Your task to perform on an android device: Open sound settings Image 0: 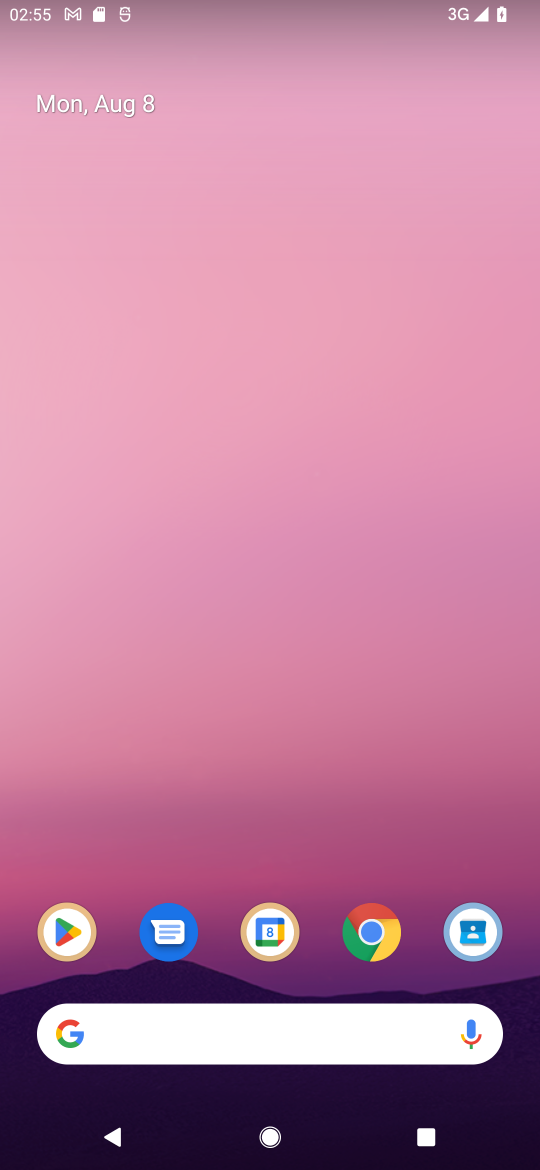
Step 0: drag from (281, 881) to (272, 5)
Your task to perform on an android device: Open sound settings Image 1: 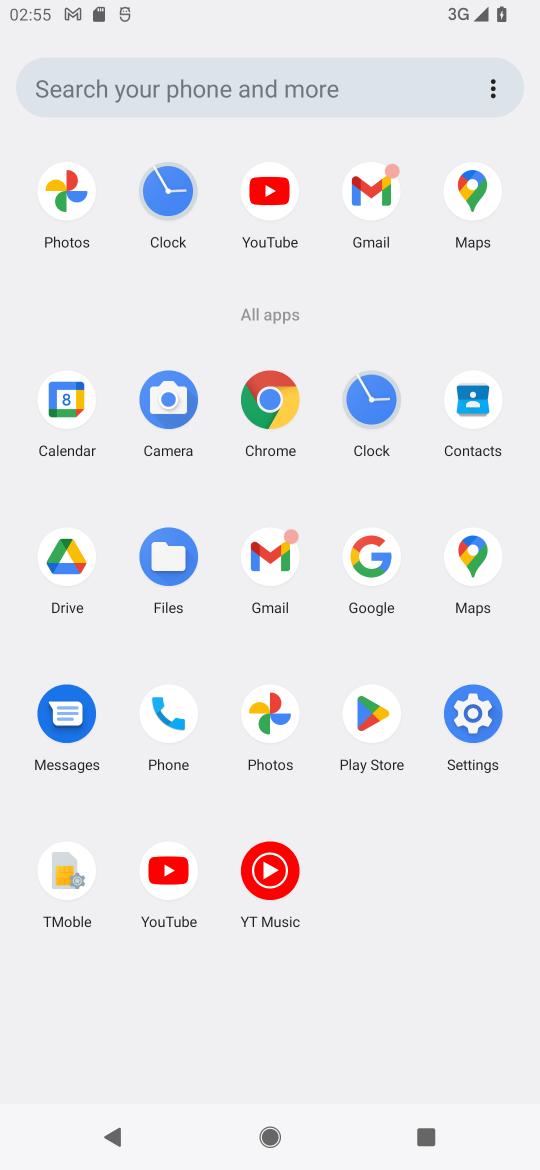
Step 1: click (482, 713)
Your task to perform on an android device: Open sound settings Image 2: 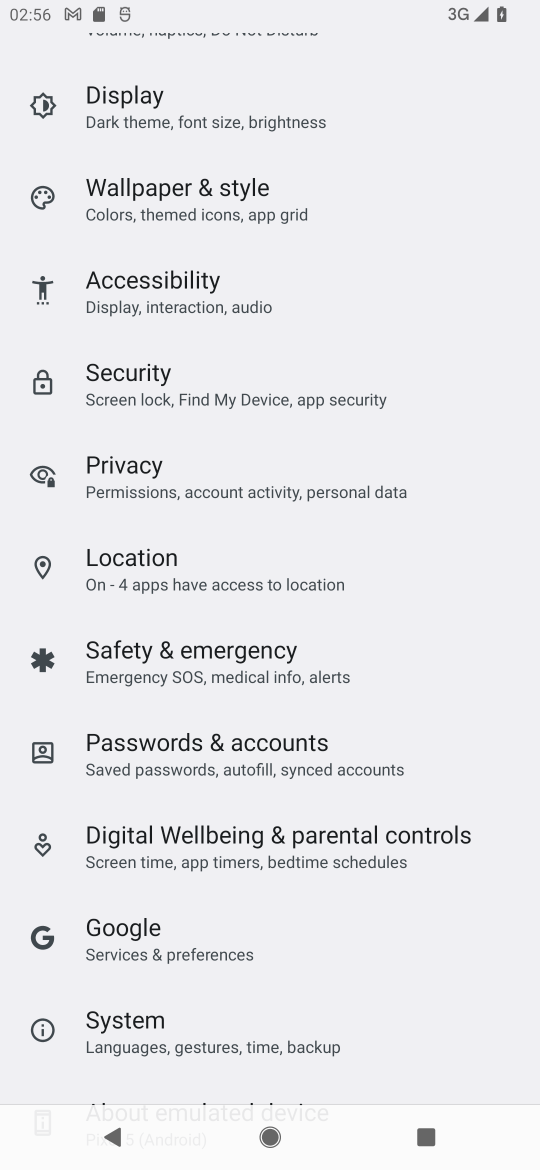
Step 2: drag from (367, 380) to (295, 938)
Your task to perform on an android device: Open sound settings Image 3: 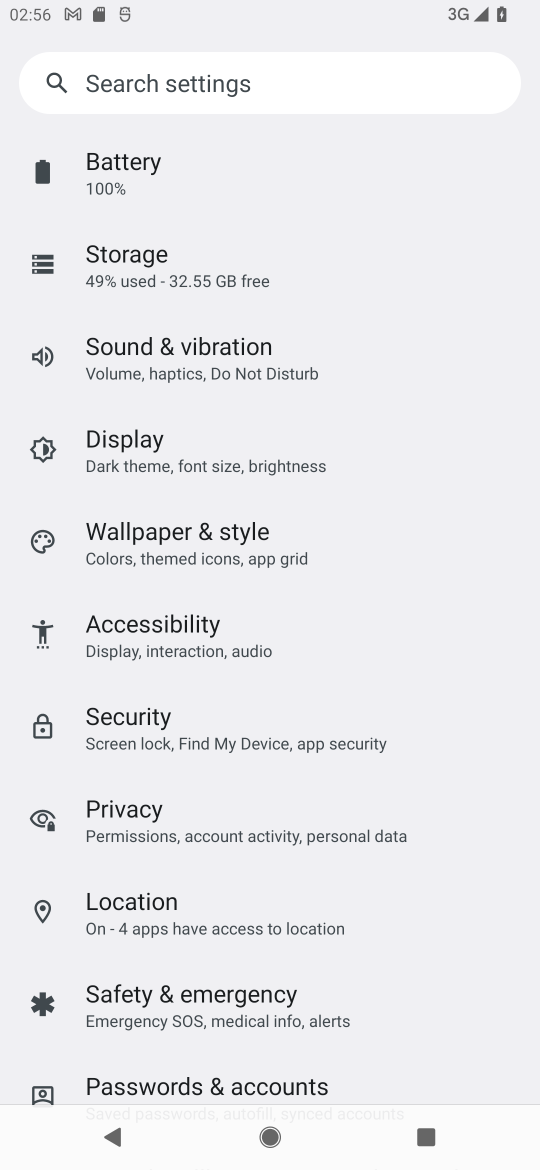
Step 3: click (155, 361)
Your task to perform on an android device: Open sound settings Image 4: 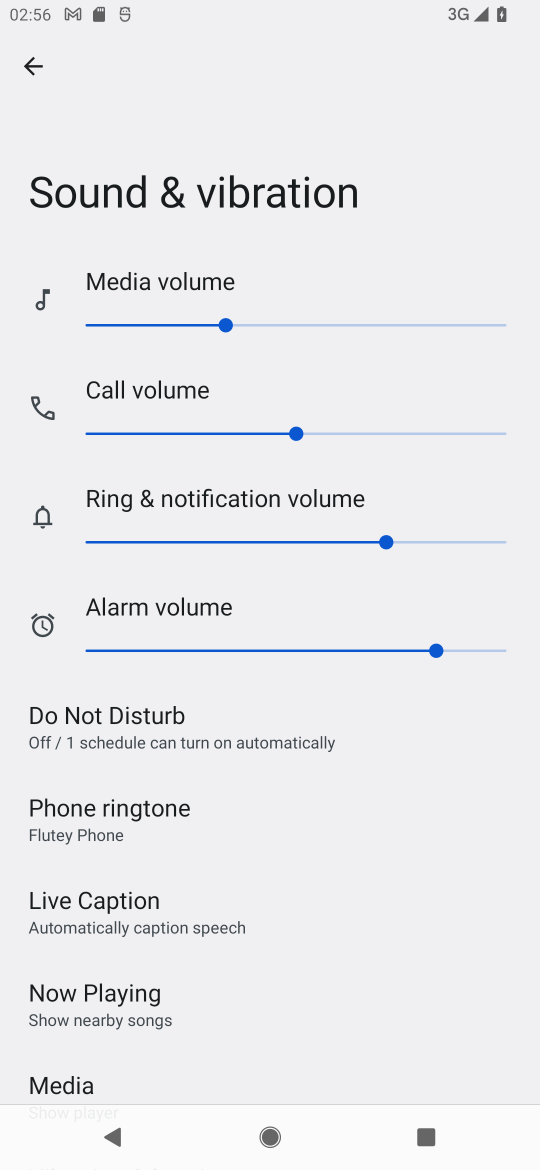
Step 4: task complete